Your task to perform on an android device: turn on airplane mode Image 0: 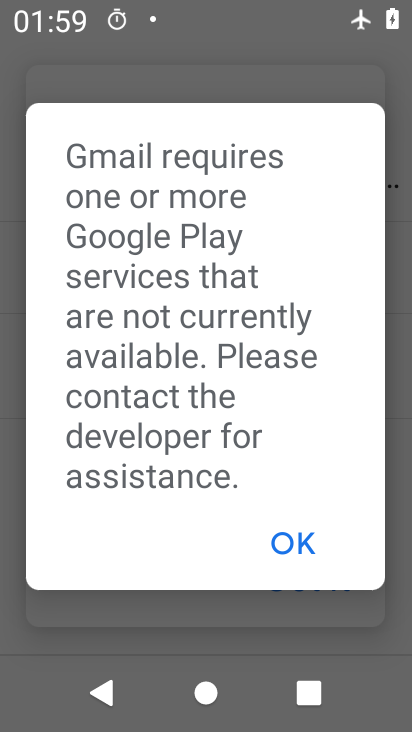
Step 0: press home button
Your task to perform on an android device: turn on airplane mode Image 1: 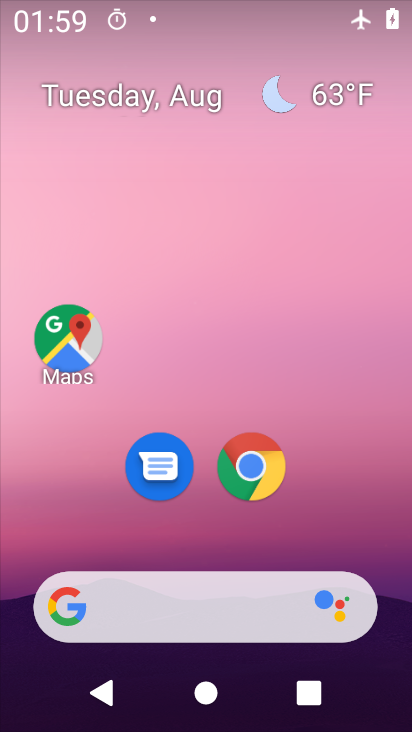
Step 1: drag from (344, 555) to (352, 161)
Your task to perform on an android device: turn on airplane mode Image 2: 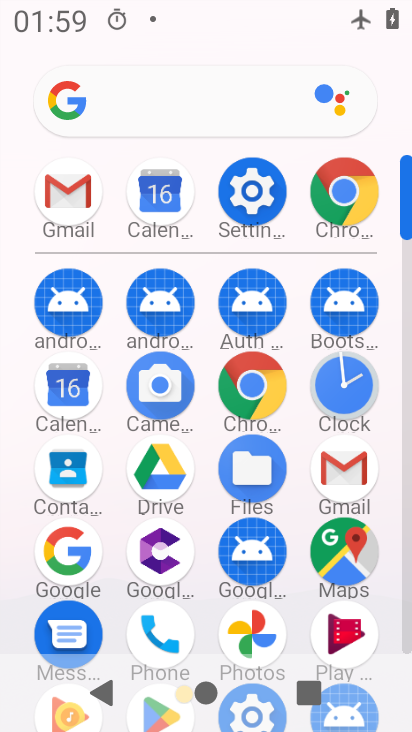
Step 2: click (263, 197)
Your task to perform on an android device: turn on airplane mode Image 3: 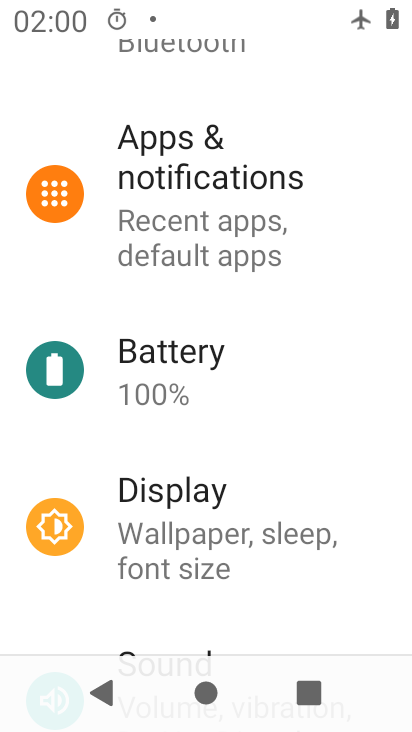
Step 3: drag from (366, 440) to (377, 341)
Your task to perform on an android device: turn on airplane mode Image 4: 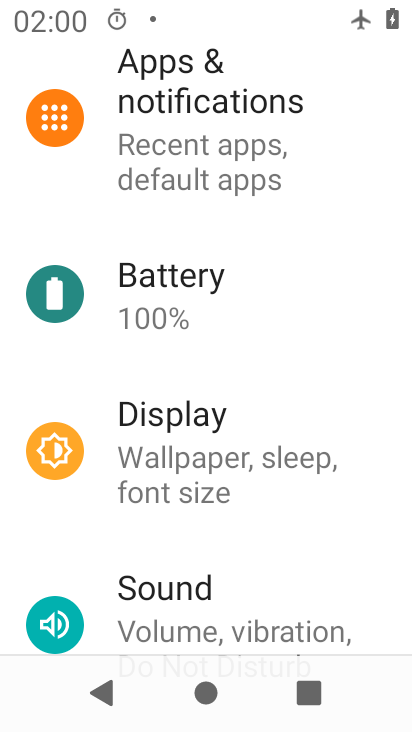
Step 4: drag from (376, 498) to (373, 369)
Your task to perform on an android device: turn on airplane mode Image 5: 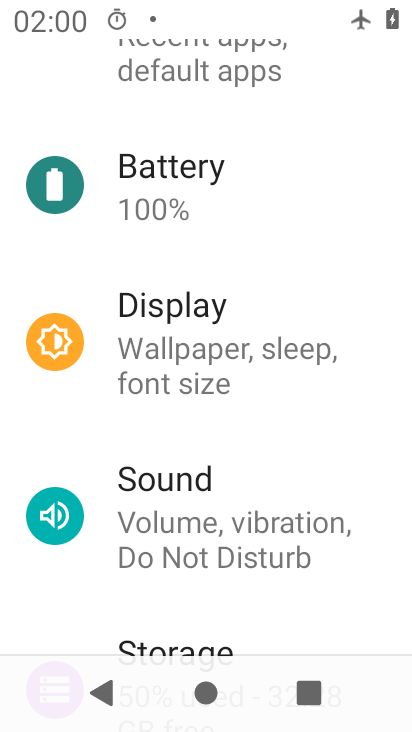
Step 5: drag from (372, 515) to (364, 340)
Your task to perform on an android device: turn on airplane mode Image 6: 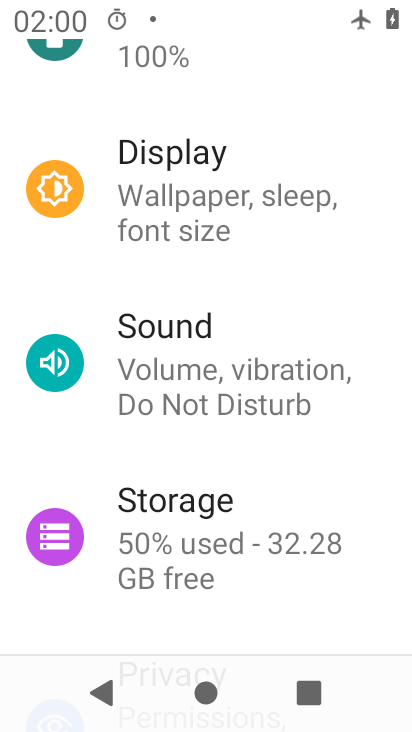
Step 6: drag from (356, 536) to (366, 361)
Your task to perform on an android device: turn on airplane mode Image 7: 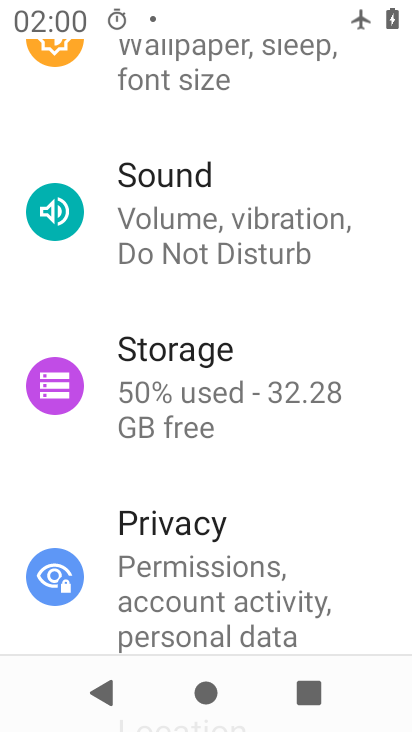
Step 7: drag from (356, 524) to (363, 360)
Your task to perform on an android device: turn on airplane mode Image 8: 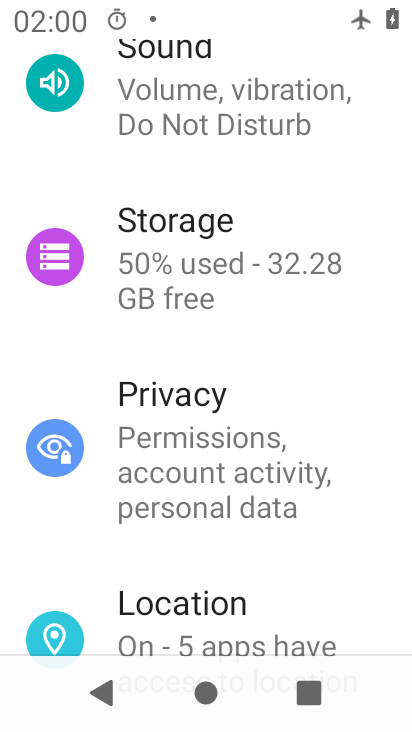
Step 8: drag from (361, 259) to (357, 454)
Your task to perform on an android device: turn on airplane mode Image 9: 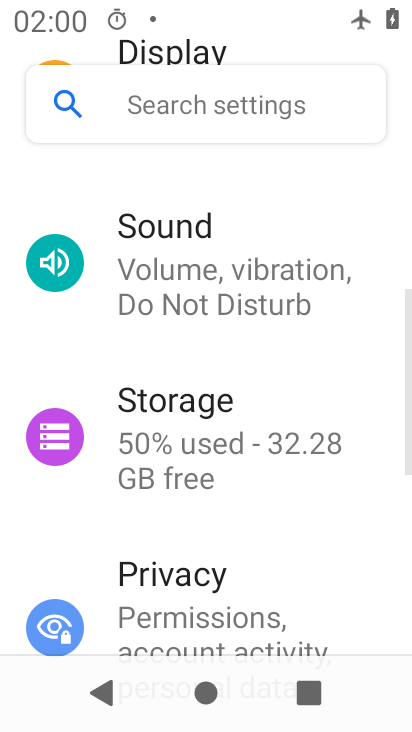
Step 9: drag from (371, 254) to (376, 413)
Your task to perform on an android device: turn on airplane mode Image 10: 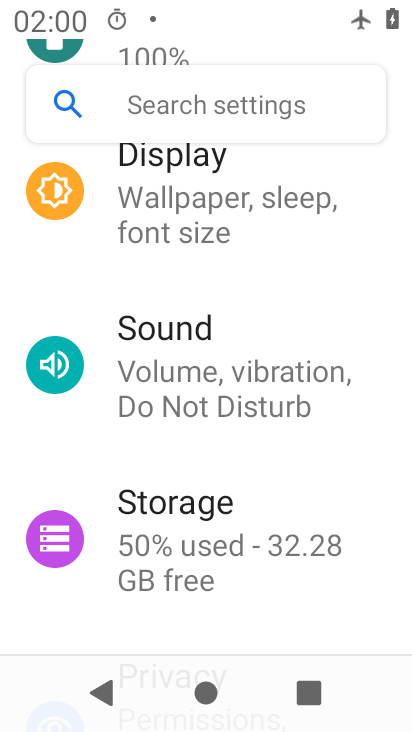
Step 10: drag from (375, 248) to (375, 374)
Your task to perform on an android device: turn on airplane mode Image 11: 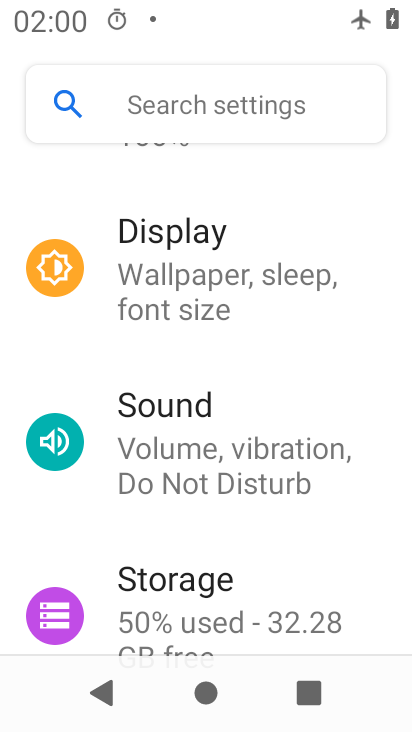
Step 11: drag from (373, 206) to (375, 338)
Your task to perform on an android device: turn on airplane mode Image 12: 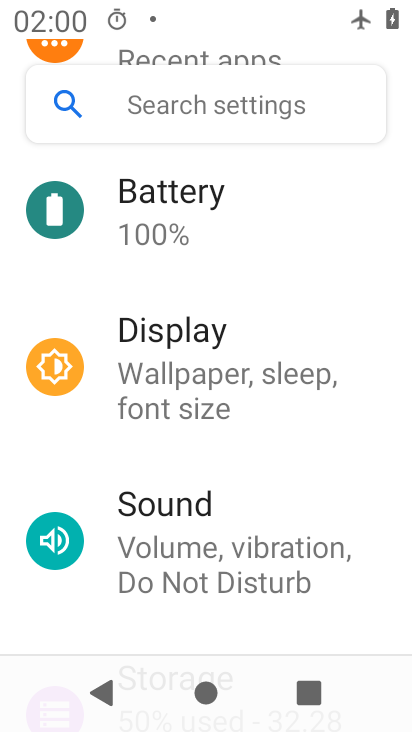
Step 12: drag from (369, 187) to (363, 314)
Your task to perform on an android device: turn on airplane mode Image 13: 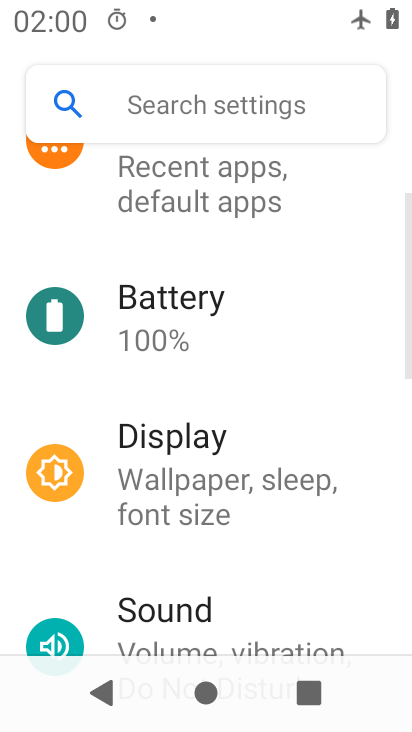
Step 13: drag from (369, 196) to (359, 307)
Your task to perform on an android device: turn on airplane mode Image 14: 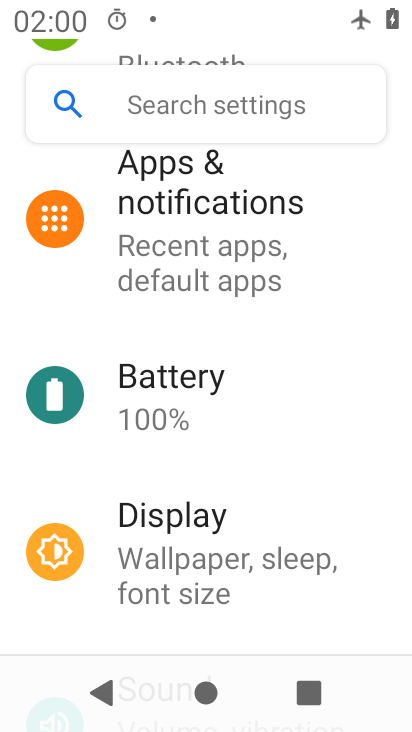
Step 14: drag from (356, 171) to (355, 323)
Your task to perform on an android device: turn on airplane mode Image 15: 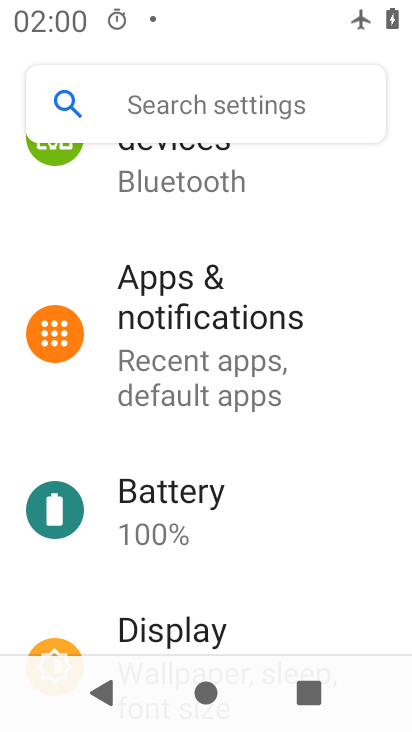
Step 15: drag from (349, 162) to (356, 302)
Your task to perform on an android device: turn on airplane mode Image 16: 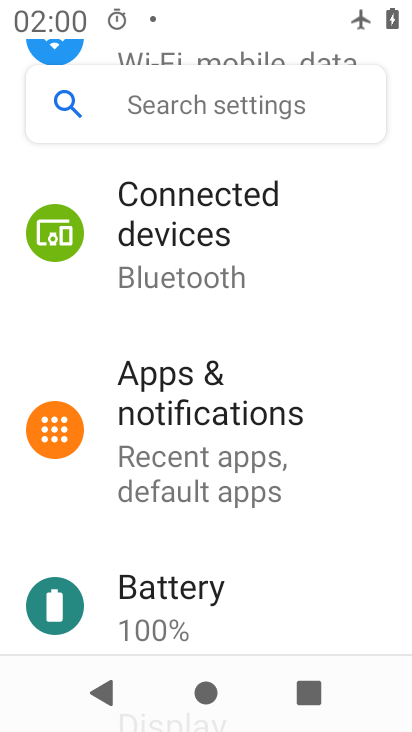
Step 16: drag from (371, 157) to (362, 319)
Your task to perform on an android device: turn on airplane mode Image 17: 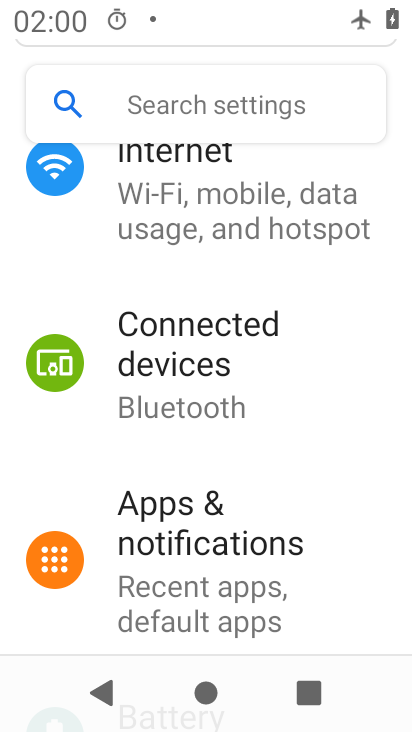
Step 17: drag from (361, 172) to (350, 321)
Your task to perform on an android device: turn on airplane mode Image 18: 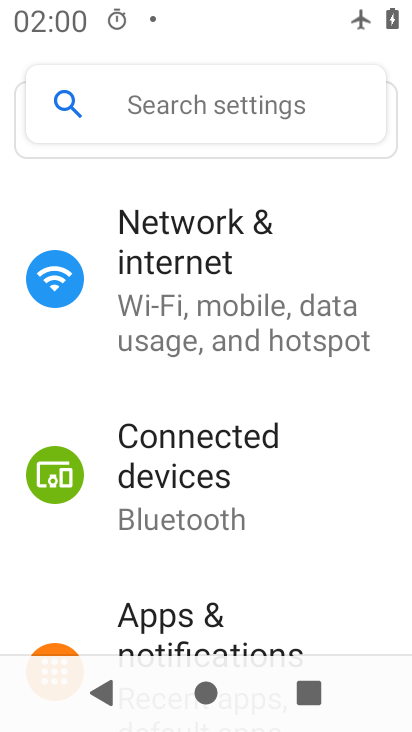
Step 18: click (266, 270)
Your task to perform on an android device: turn on airplane mode Image 19: 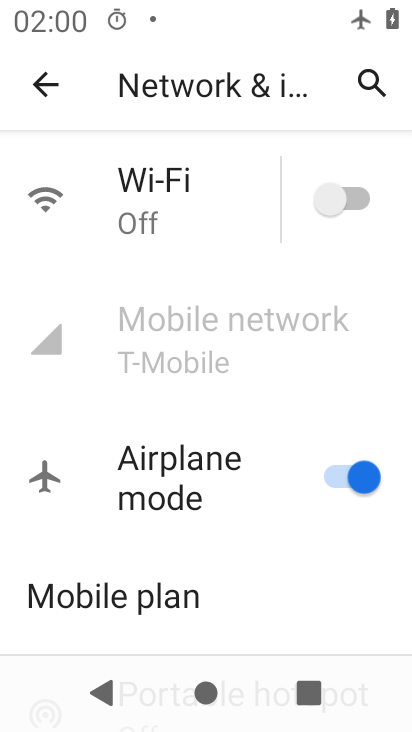
Step 19: task complete